Your task to perform on an android device: change the clock display to digital Image 0: 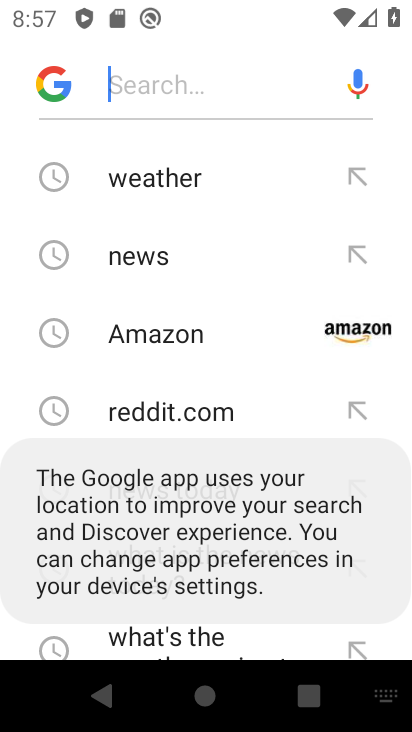
Step 0: press home button
Your task to perform on an android device: change the clock display to digital Image 1: 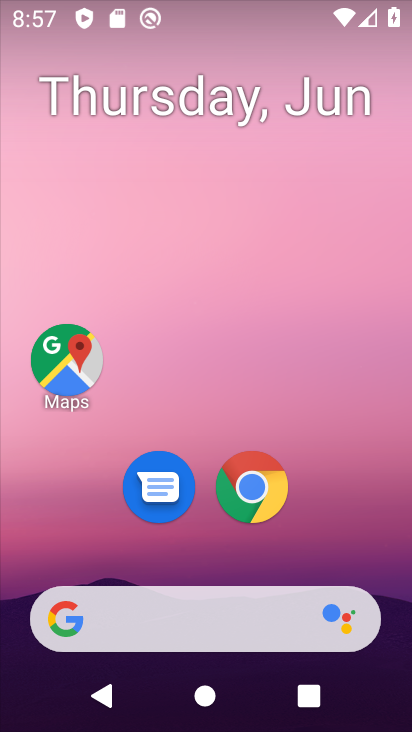
Step 1: drag from (233, 719) to (210, 113)
Your task to perform on an android device: change the clock display to digital Image 2: 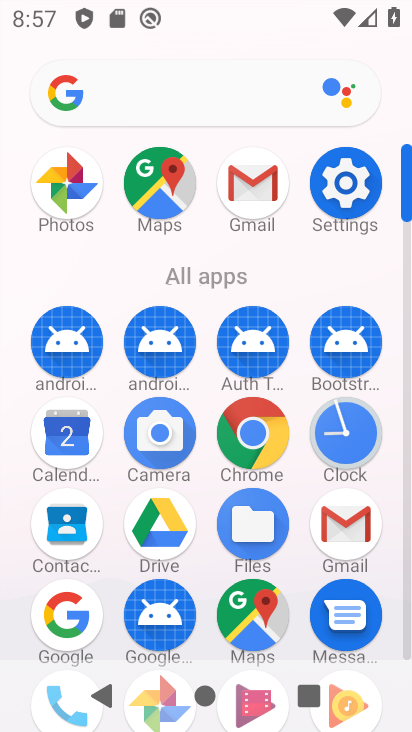
Step 2: click (341, 449)
Your task to perform on an android device: change the clock display to digital Image 3: 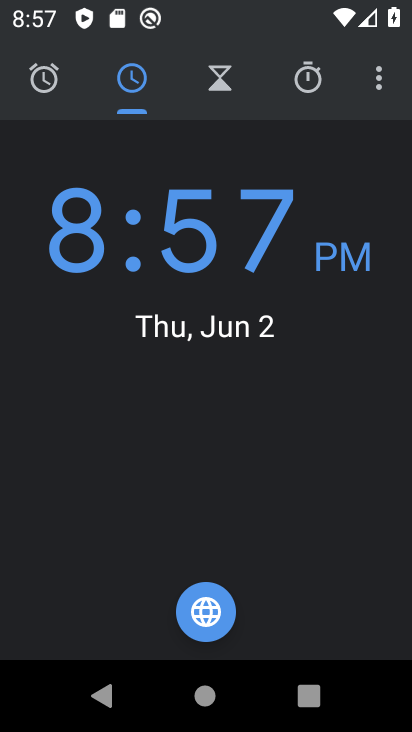
Step 3: click (380, 90)
Your task to perform on an android device: change the clock display to digital Image 4: 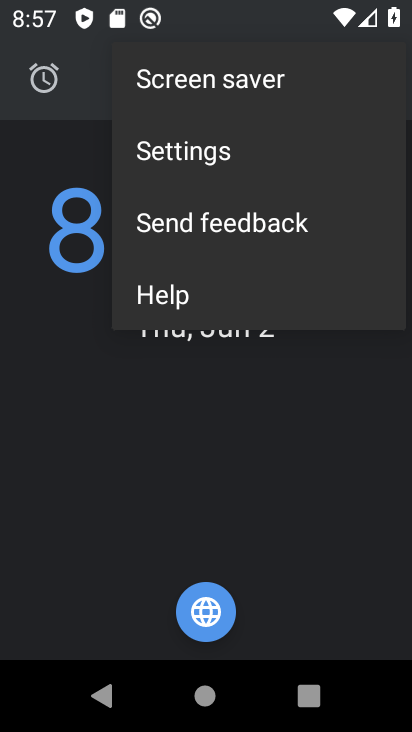
Step 4: click (185, 145)
Your task to perform on an android device: change the clock display to digital Image 5: 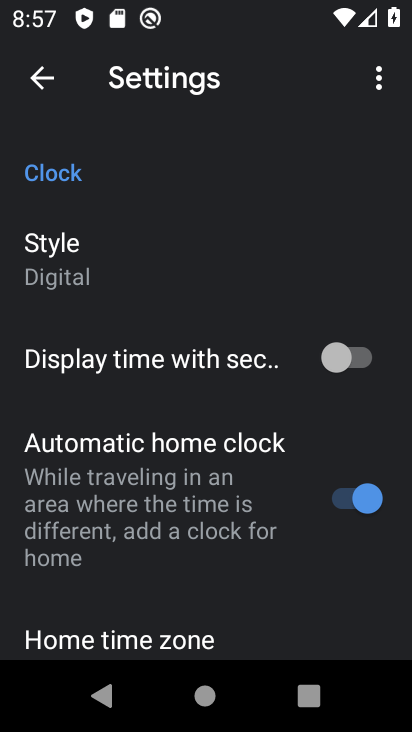
Step 5: task complete